Your task to perform on an android device: Open privacy settings Image 0: 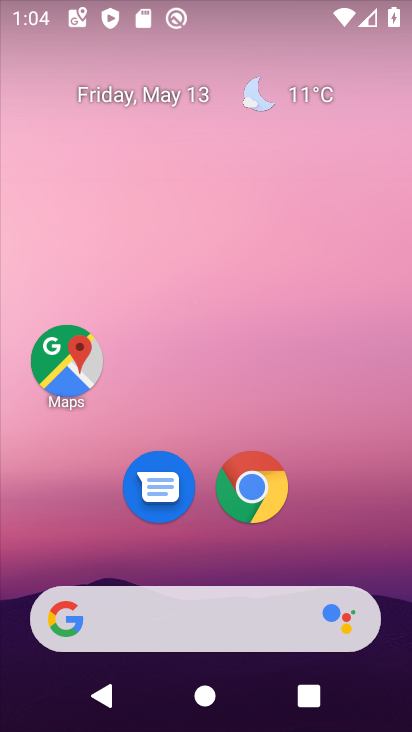
Step 0: click (249, 516)
Your task to perform on an android device: Open privacy settings Image 1: 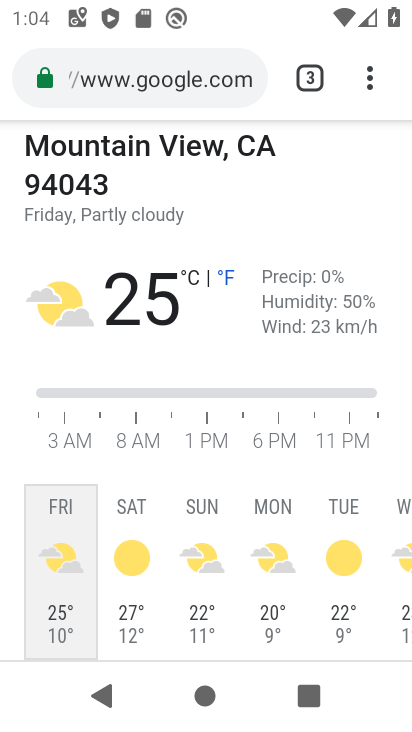
Step 1: drag from (375, 84) to (230, 557)
Your task to perform on an android device: Open privacy settings Image 2: 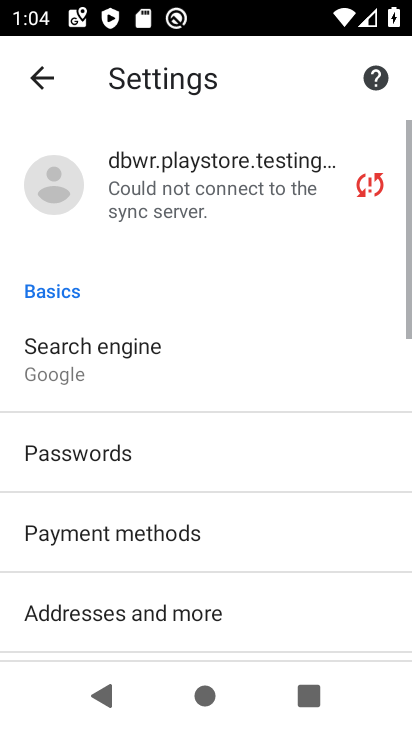
Step 2: drag from (213, 568) to (234, 175)
Your task to perform on an android device: Open privacy settings Image 3: 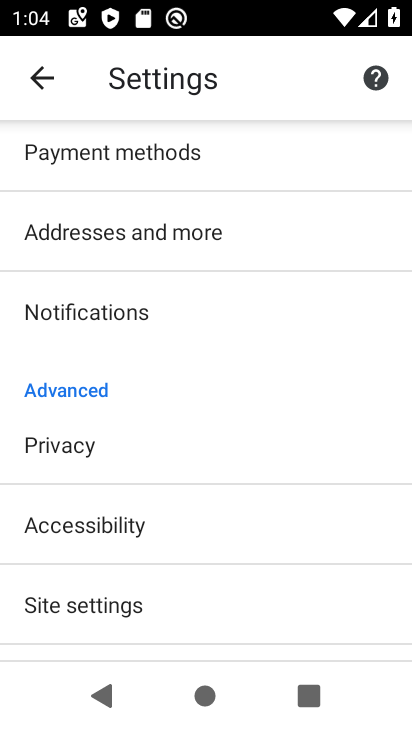
Step 3: click (94, 452)
Your task to perform on an android device: Open privacy settings Image 4: 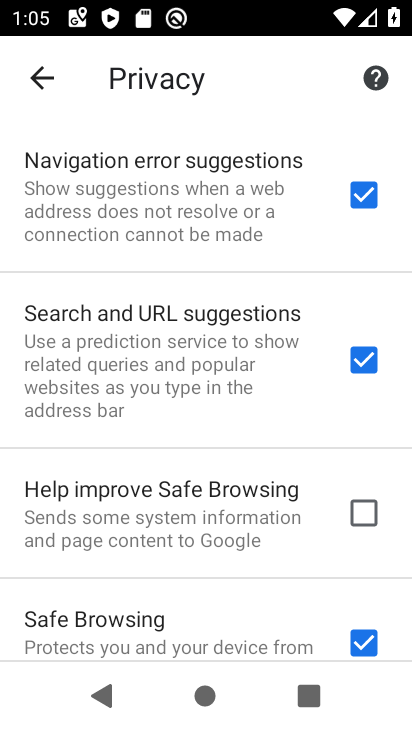
Step 4: task complete